Your task to perform on an android device: Show me popular games on the Play Store Image 0: 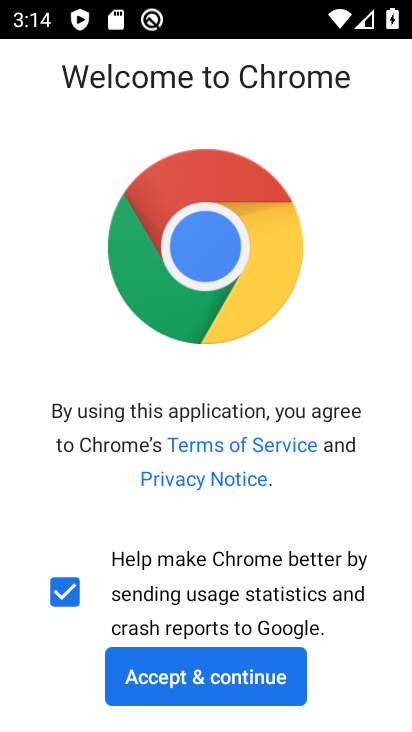
Step 0: click (233, 673)
Your task to perform on an android device: Show me popular games on the Play Store Image 1: 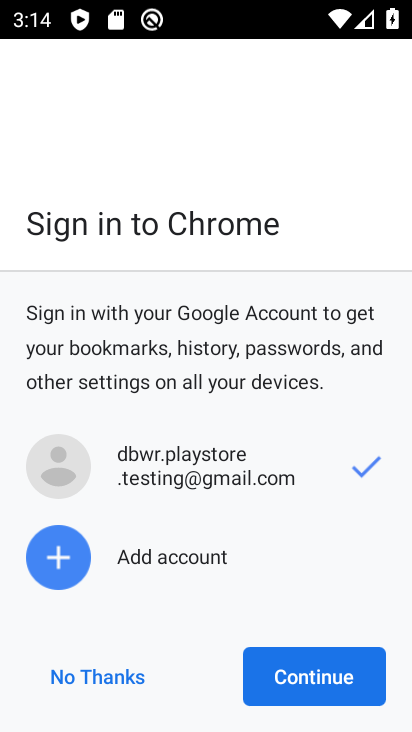
Step 1: click (117, 677)
Your task to perform on an android device: Show me popular games on the Play Store Image 2: 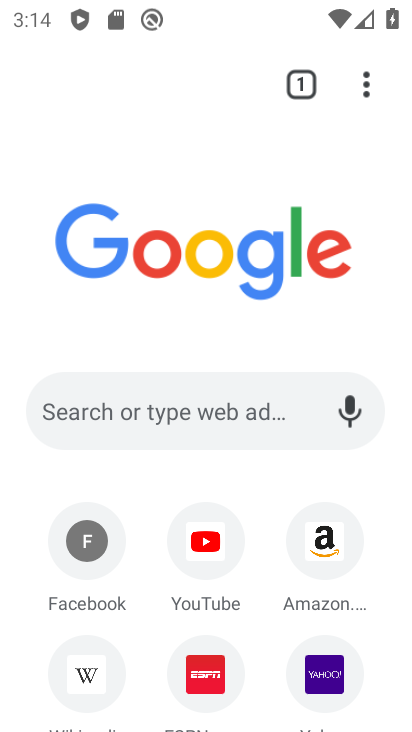
Step 2: press home button
Your task to perform on an android device: Show me popular games on the Play Store Image 3: 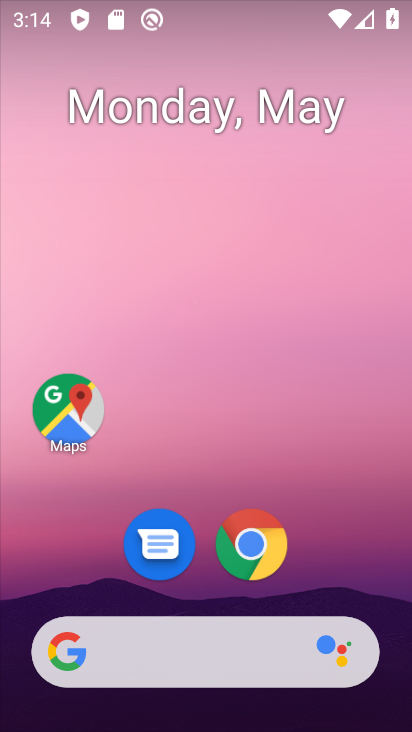
Step 3: drag from (313, 603) to (223, 85)
Your task to perform on an android device: Show me popular games on the Play Store Image 4: 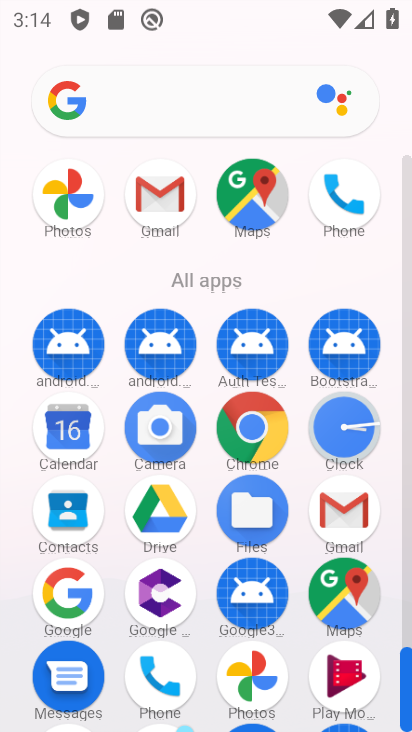
Step 4: drag from (299, 606) to (282, 277)
Your task to perform on an android device: Show me popular games on the Play Store Image 5: 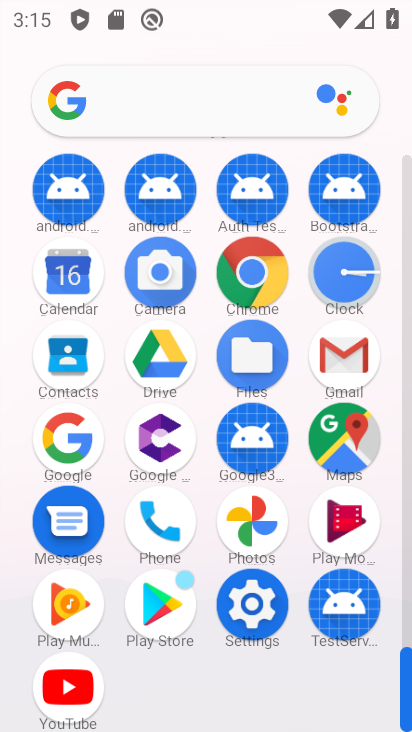
Step 5: click (175, 576)
Your task to perform on an android device: Show me popular games on the Play Store Image 6: 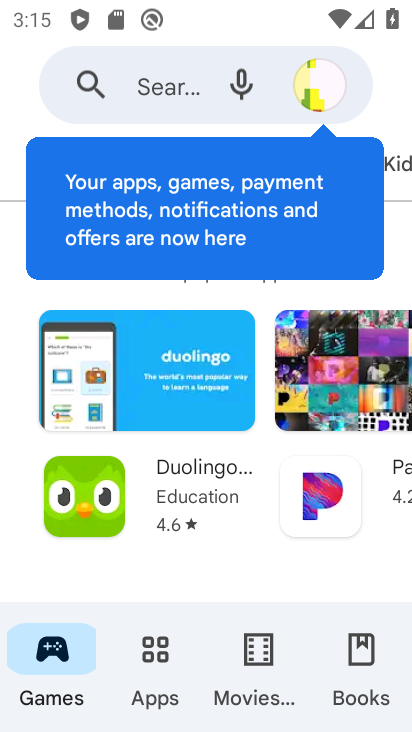
Step 6: drag from (276, 557) to (255, 213)
Your task to perform on an android device: Show me popular games on the Play Store Image 7: 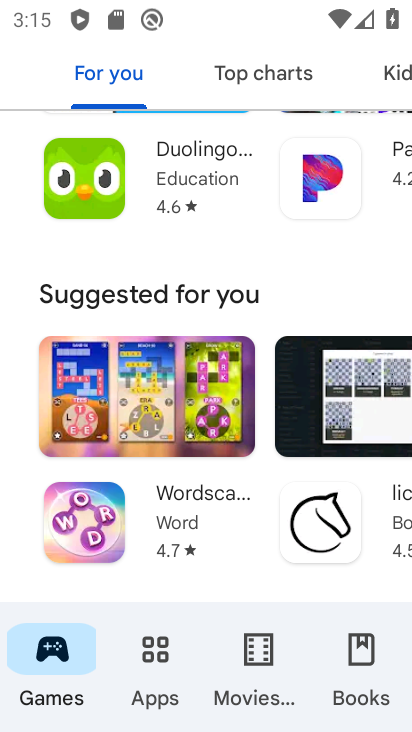
Step 7: drag from (251, 572) to (202, 146)
Your task to perform on an android device: Show me popular games on the Play Store Image 8: 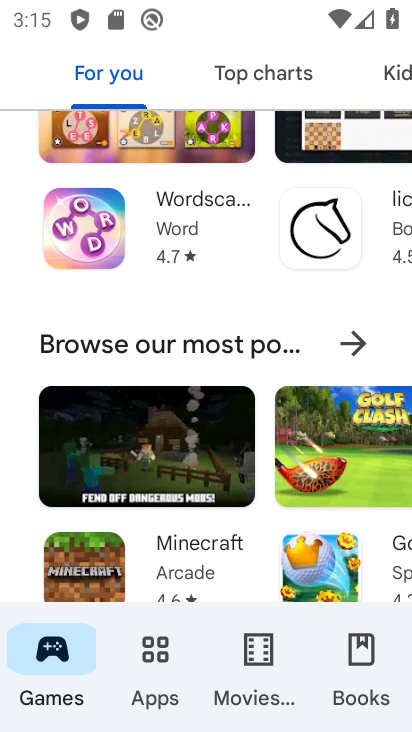
Step 8: drag from (407, 465) to (89, 456)
Your task to perform on an android device: Show me popular games on the Play Store Image 9: 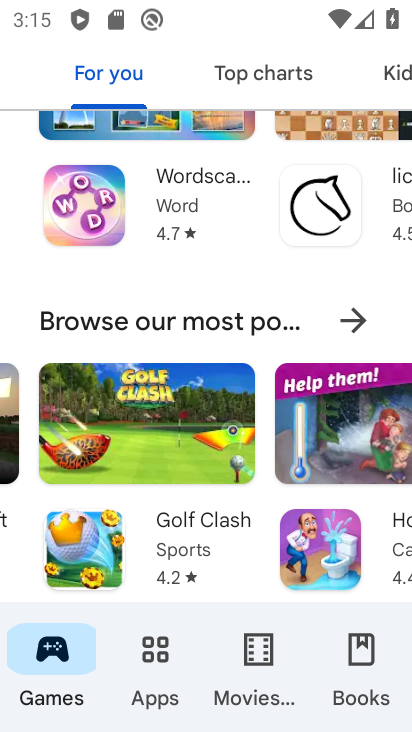
Step 9: click (360, 311)
Your task to perform on an android device: Show me popular games on the Play Store Image 10: 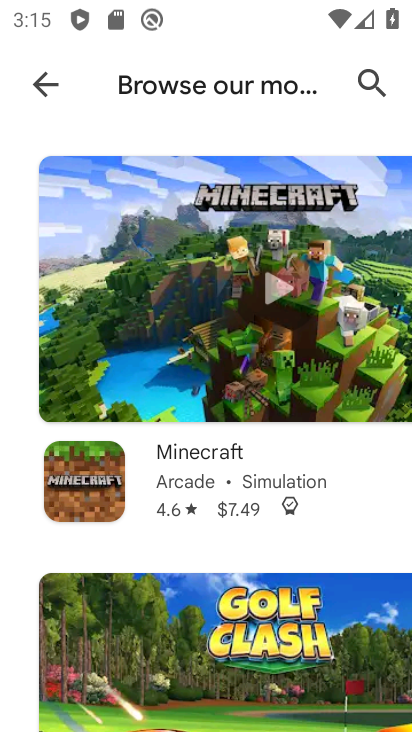
Step 10: task complete